Your task to perform on an android device: toggle data saver in the chrome app Image 0: 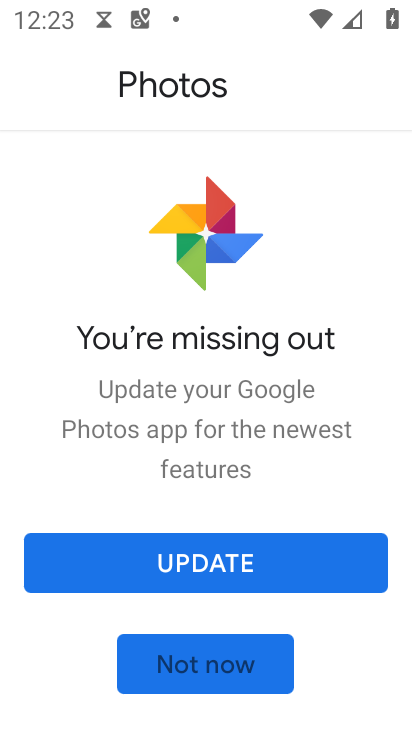
Step 0: press home button
Your task to perform on an android device: toggle data saver in the chrome app Image 1: 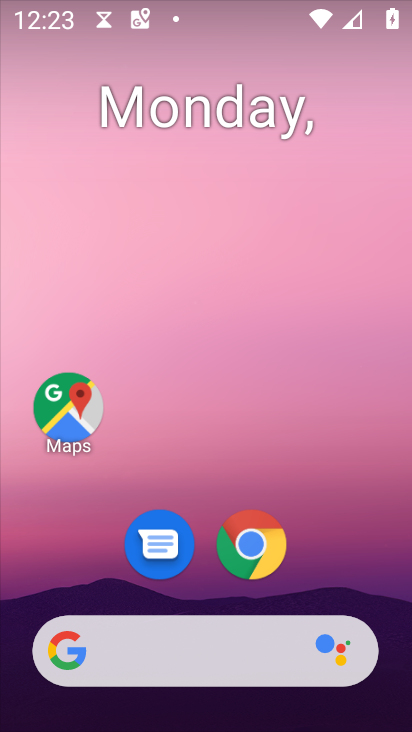
Step 1: click (246, 527)
Your task to perform on an android device: toggle data saver in the chrome app Image 2: 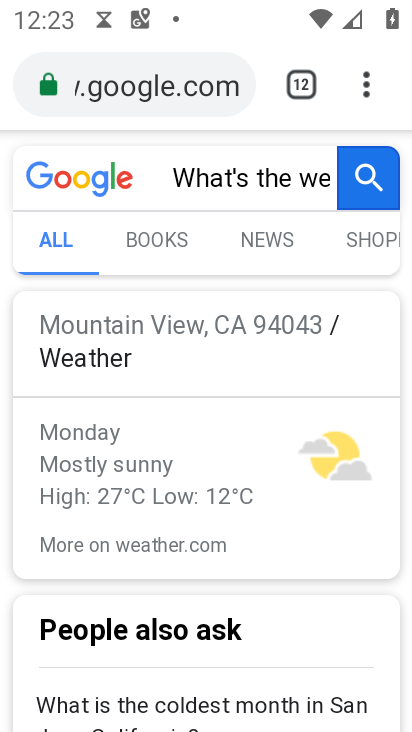
Step 2: click (367, 71)
Your task to perform on an android device: toggle data saver in the chrome app Image 3: 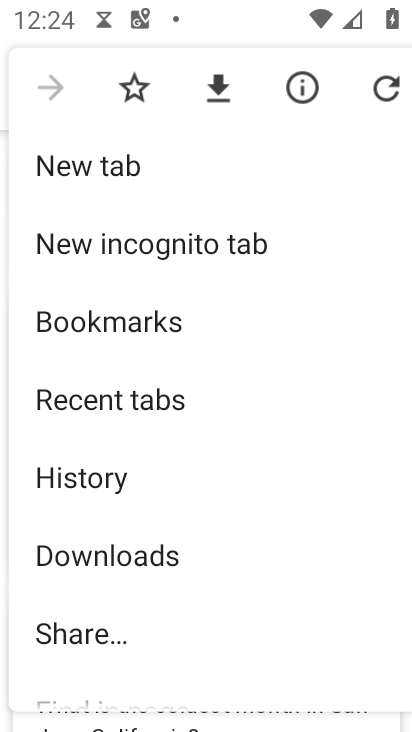
Step 3: drag from (170, 611) to (239, 130)
Your task to perform on an android device: toggle data saver in the chrome app Image 4: 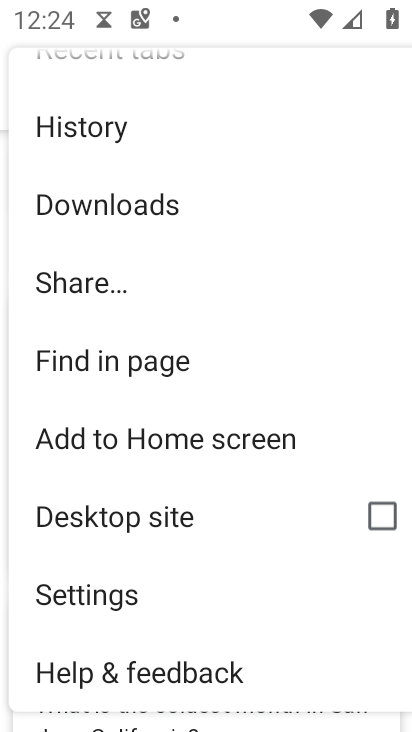
Step 4: click (131, 585)
Your task to perform on an android device: toggle data saver in the chrome app Image 5: 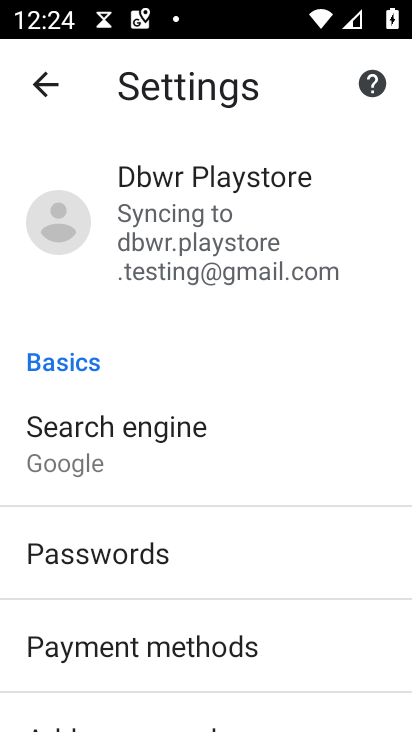
Step 5: drag from (185, 628) to (302, 166)
Your task to perform on an android device: toggle data saver in the chrome app Image 6: 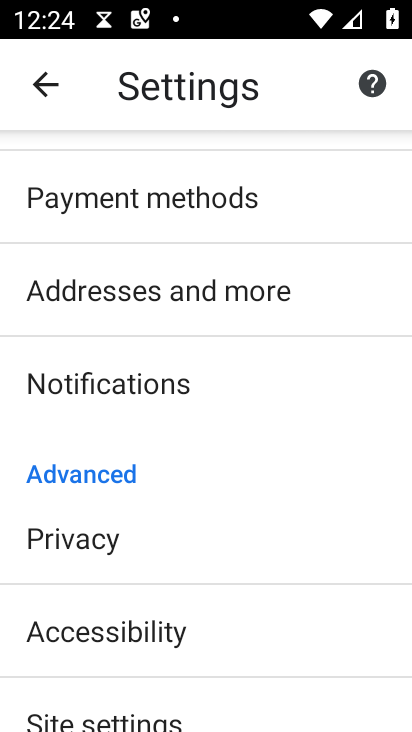
Step 6: drag from (233, 595) to (293, 230)
Your task to perform on an android device: toggle data saver in the chrome app Image 7: 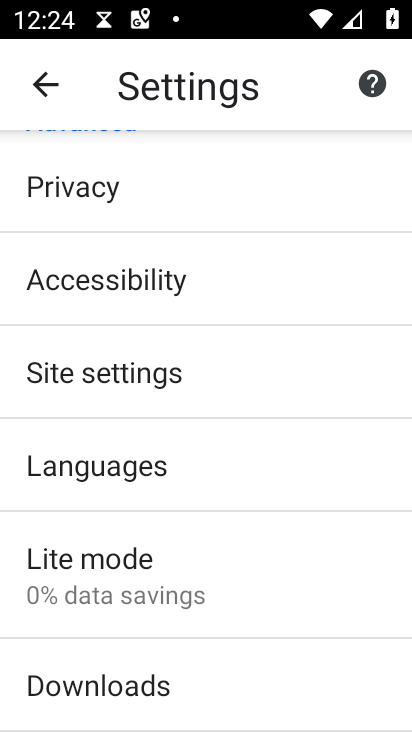
Step 7: click (220, 375)
Your task to perform on an android device: toggle data saver in the chrome app Image 8: 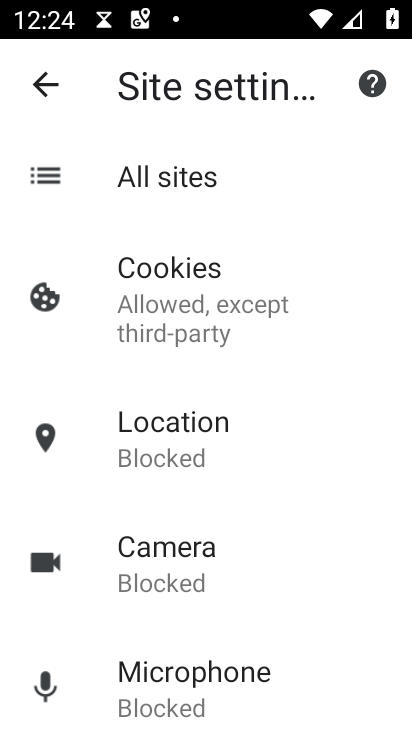
Step 8: drag from (237, 659) to (288, 209)
Your task to perform on an android device: toggle data saver in the chrome app Image 9: 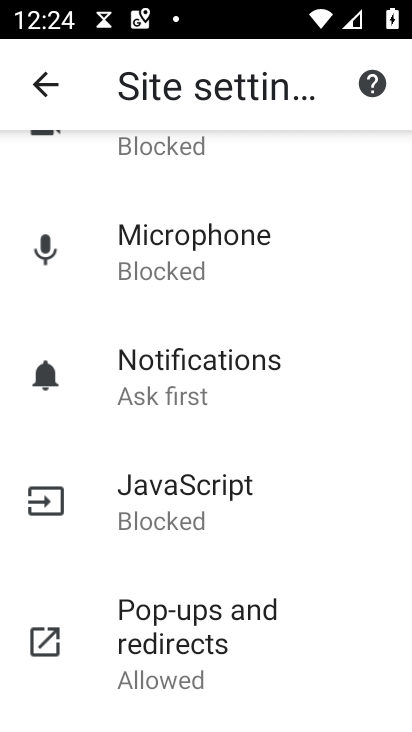
Step 9: drag from (223, 616) to (327, 297)
Your task to perform on an android device: toggle data saver in the chrome app Image 10: 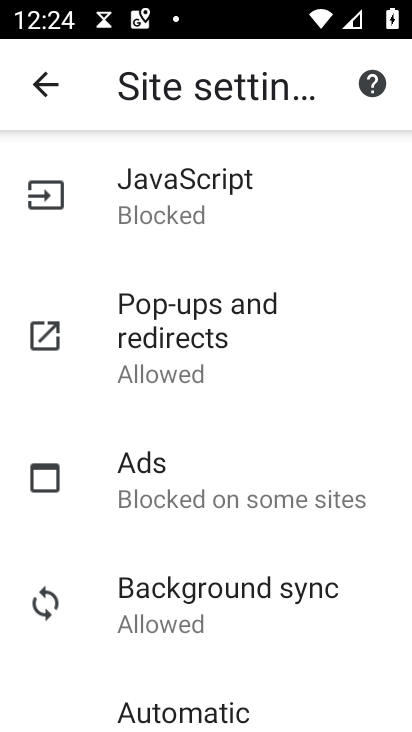
Step 10: drag from (211, 579) to (304, 268)
Your task to perform on an android device: toggle data saver in the chrome app Image 11: 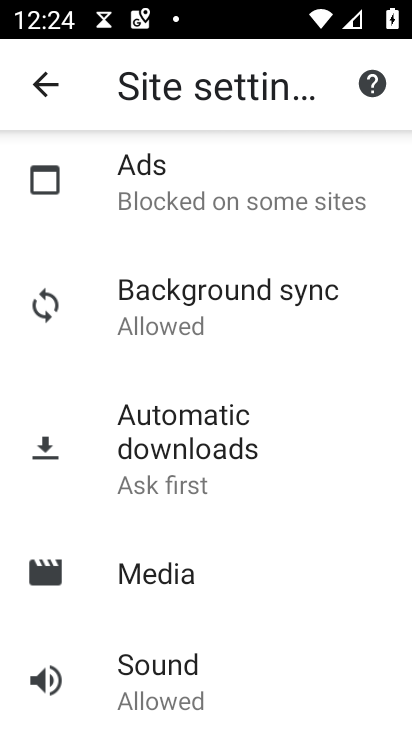
Step 11: drag from (238, 518) to (261, 328)
Your task to perform on an android device: toggle data saver in the chrome app Image 12: 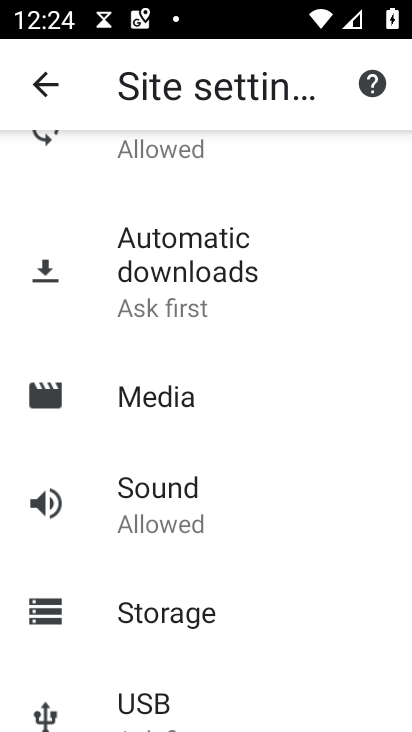
Step 12: drag from (232, 636) to (313, 243)
Your task to perform on an android device: toggle data saver in the chrome app Image 13: 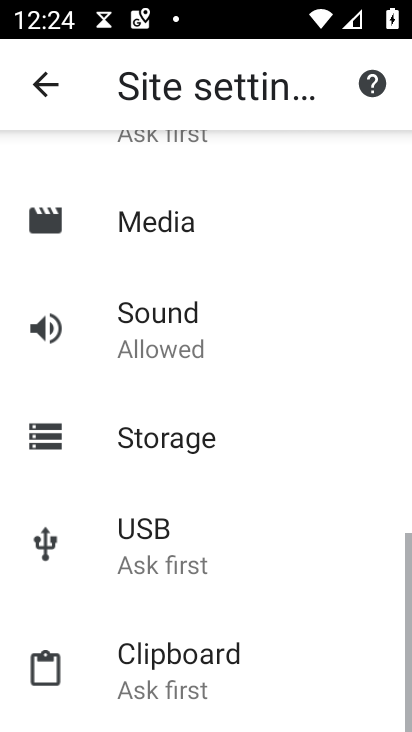
Step 13: drag from (260, 256) to (247, 640)
Your task to perform on an android device: toggle data saver in the chrome app Image 14: 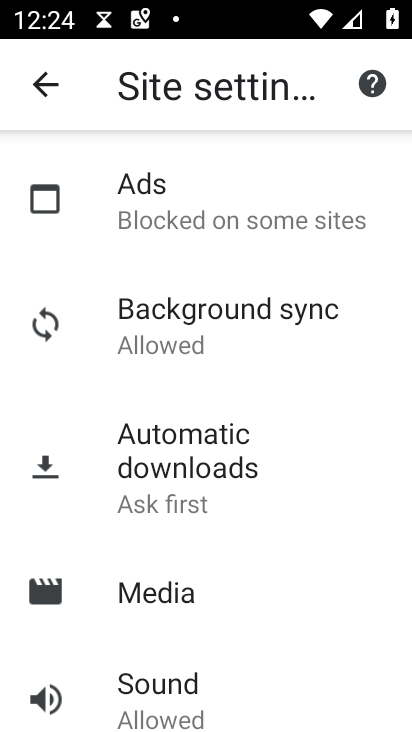
Step 14: drag from (189, 240) to (191, 595)
Your task to perform on an android device: toggle data saver in the chrome app Image 15: 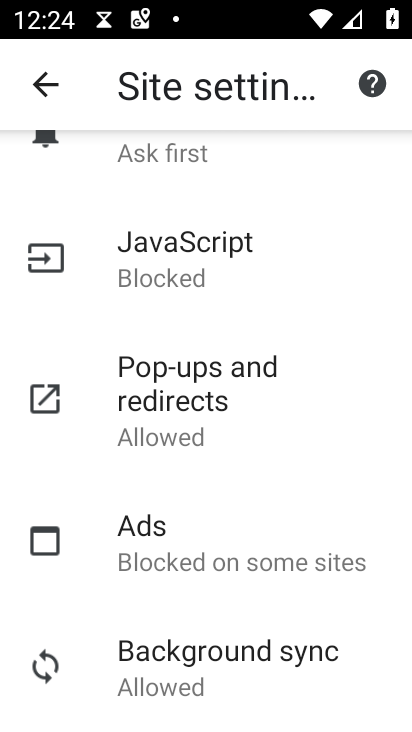
Step 15: drag from (213, 190) to (214, 543)
Your task to perform on an android device: toggle data saver in the chrome app Image 16: 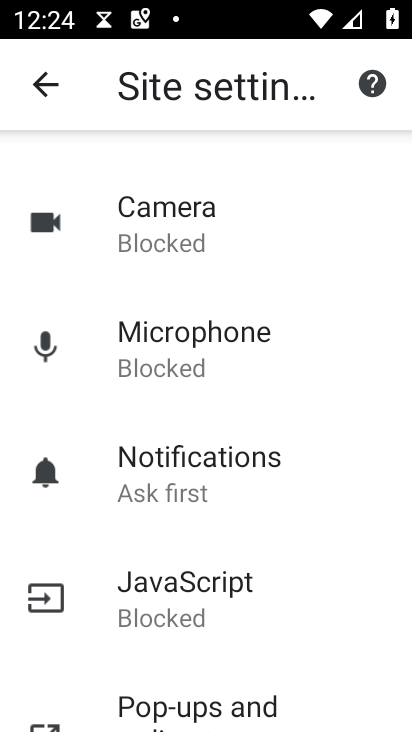
Step 16: drag from (223, 583) to (267, 354)
Your task to perform on an android device: toggle data saver in the chrome app Image 17: 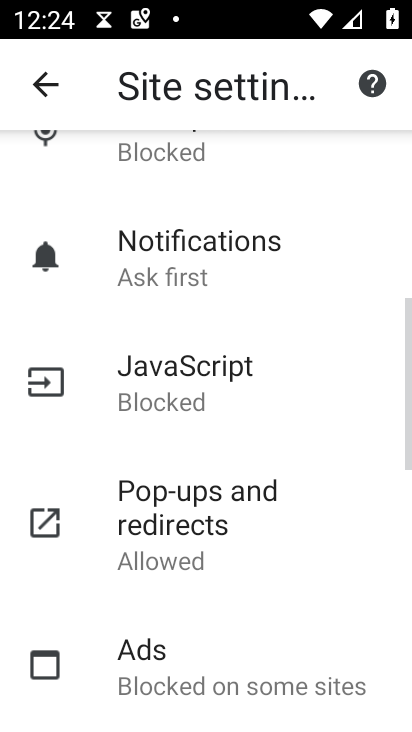
Step 17: click (41, 84)
Your task to perform on an android device: toggle data saver in the chrome app Image 18: 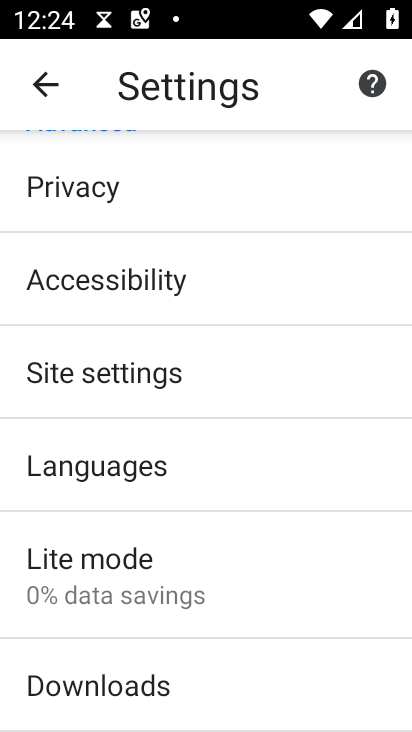
Step 18: click (126, 574)
Your task to perform on an android device: toggle data saver in the chrome app Image 19: 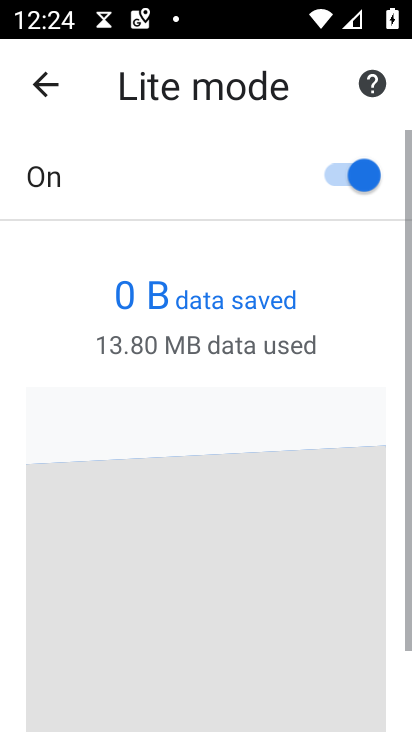
Step 19: click (366, 165)
Your task to perform on an android device: toggle data saver in the chrome app Image 20: 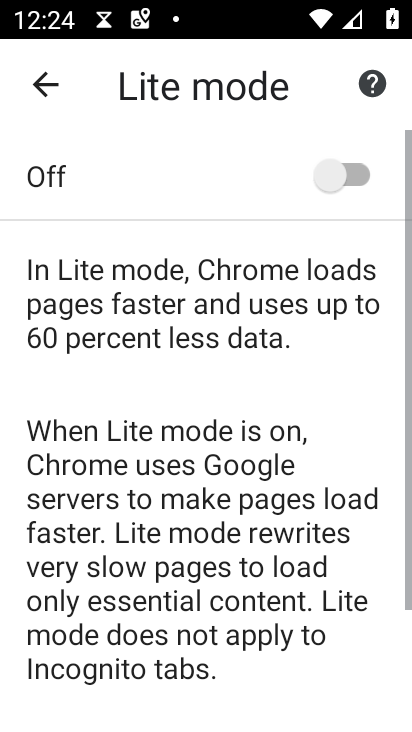
Step 20: task complete